Your task to perform on an android device: turn on improve location accuracy Image 0: 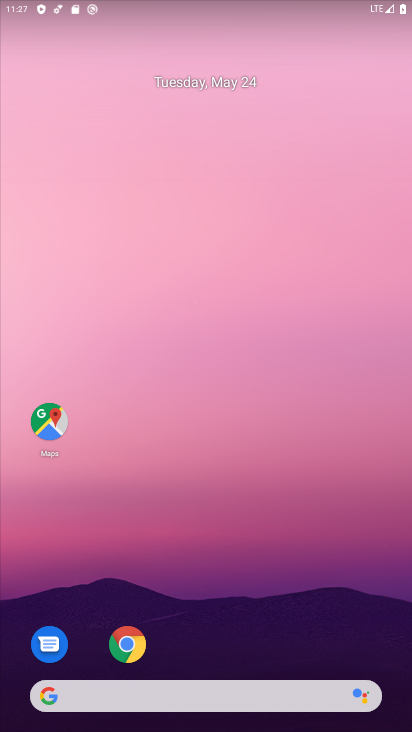
Step 0: drag from (245, 593) to (162, 14)
Your task to perform on an android device: turn on improve location accuracy Image 1: 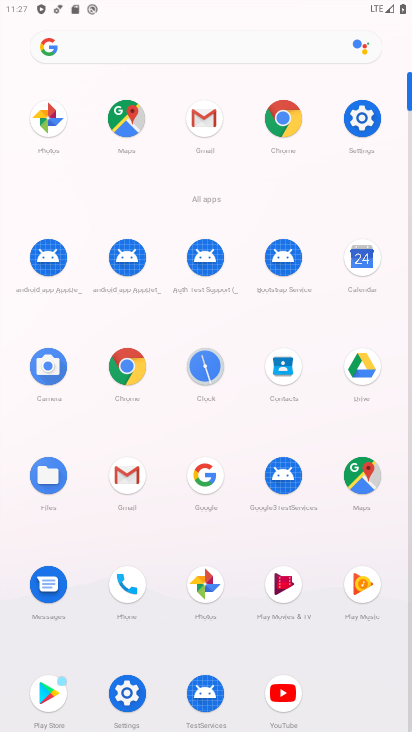
Step 1: click (356, 110)
Your task to perform on an android device: turn on improve location accuracy Image 2: 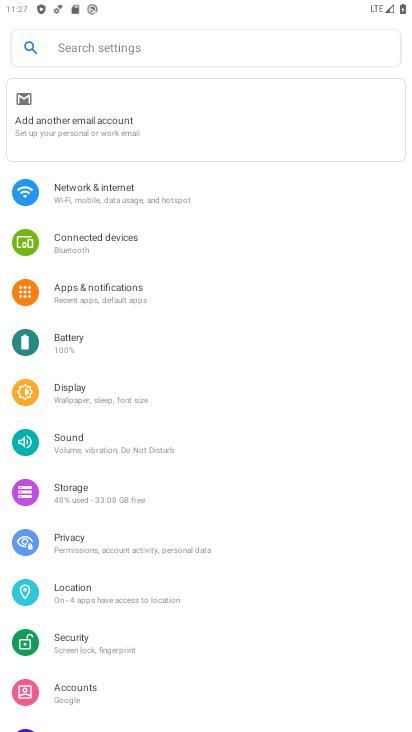
Step 2: click (68, 583)
Your task to perform on an android device: turn on improve location accuracy Image 3: 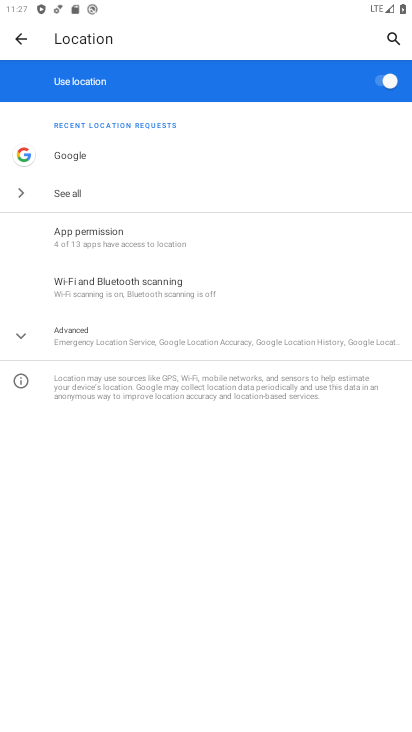
Step 3: click (39, 339)
Your task to perform on an android device: turn on improve location accuracy Image 4: 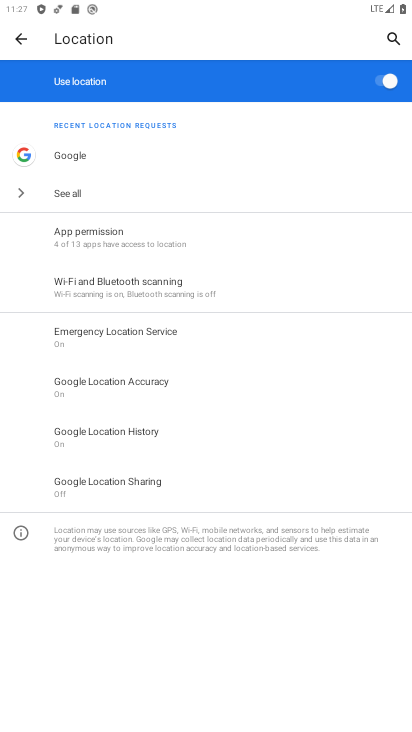
Step 4: click (88, 379)
Your task to perform on an android device: turn on improve location accuracy Image 5: 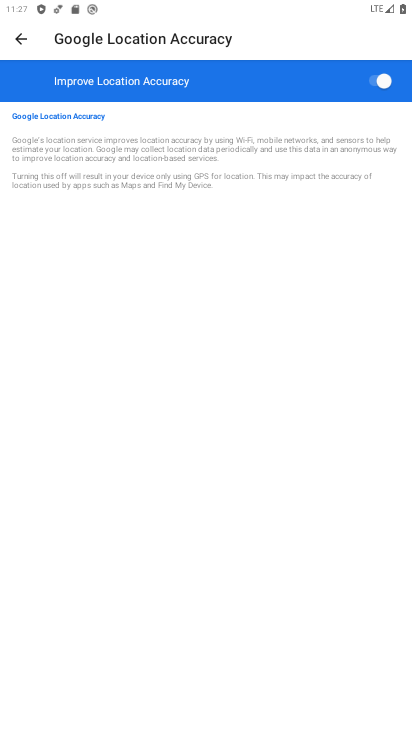
Step 5: task complete